Your task to perform on an android device: toggle show notifications on the lock screen Image 0: 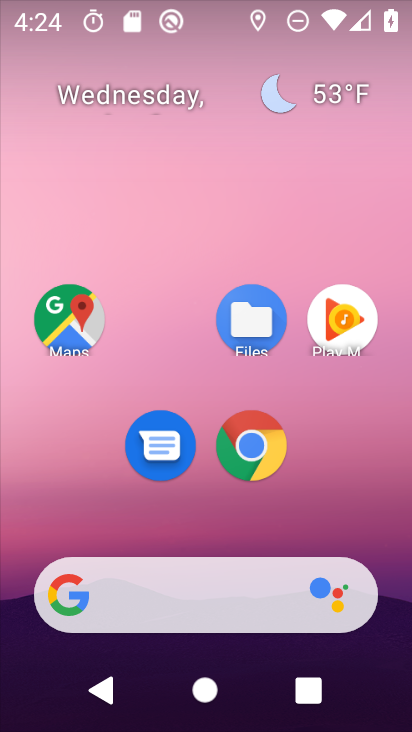
Step 0: click (252, 433)
Your task to perform on an android device: toggle show notifications on the lock screen Image 1: 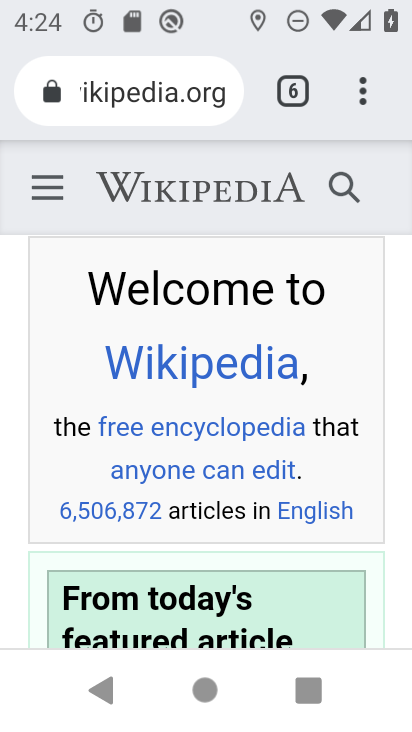
Step 1: press home button
Your task to perform on an android device: toggle show notifications on the lock screen Image 2: 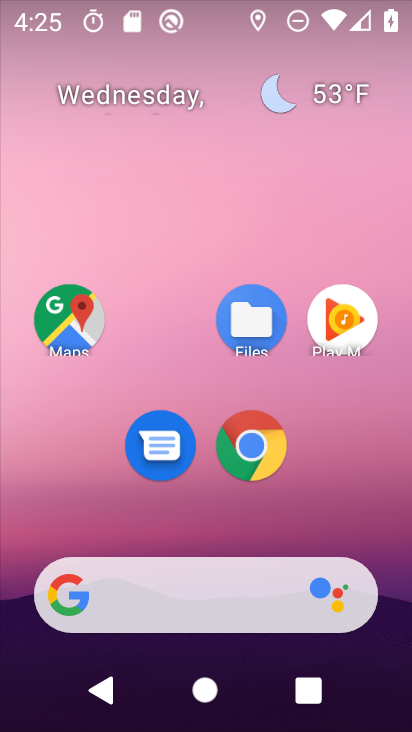
Step 2: drag from (315, 531) to (264, 150)
Your task to perform on an android device: toggle show notifications on the lock screen Image 3: 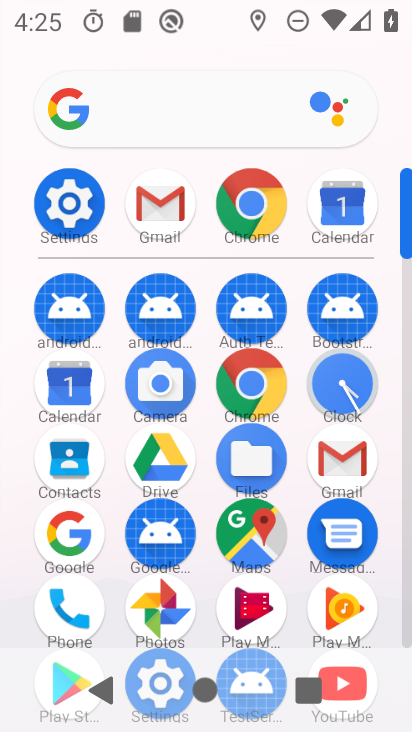
Step 3: click (66, 212)
Your task to perform on an android device: toggle show notifications on the lock screen Image 4: 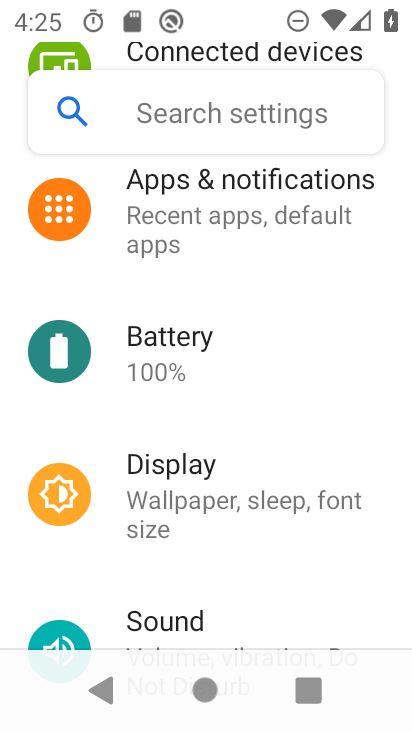
Step 4: click (128, 229)
Your task to perform on an android device: toggle show notifications on the lock screen Image 5: 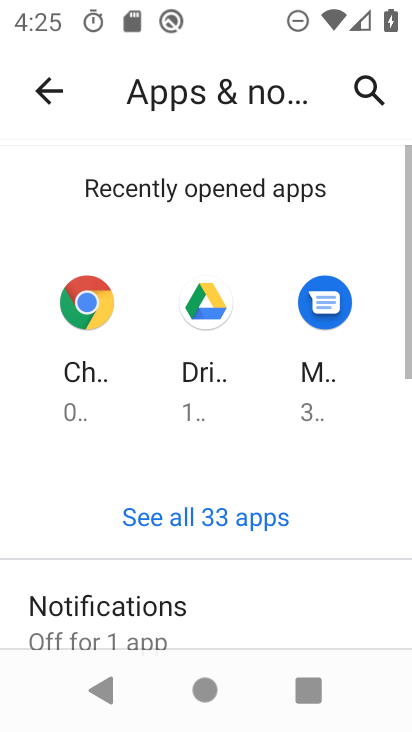
Step 5: drag from (198, 564) to (188, 165)
Your task to perform on an android device: toggle show notifications on the lock screen Image 6: 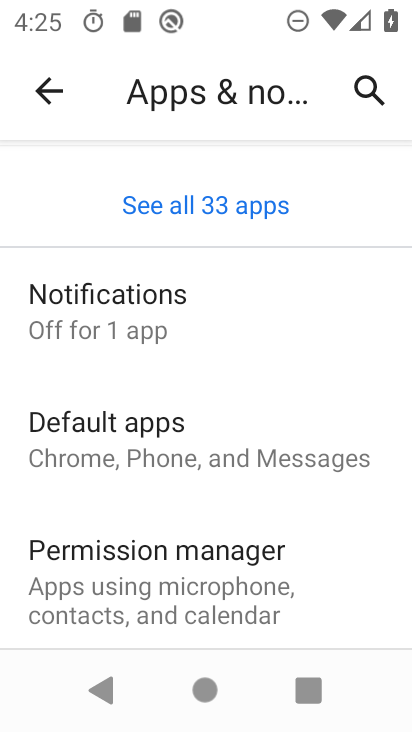
Step 6: click (195, 336)
Your task to perform on an android device: toggle show notifications on the lock screen Image 7: 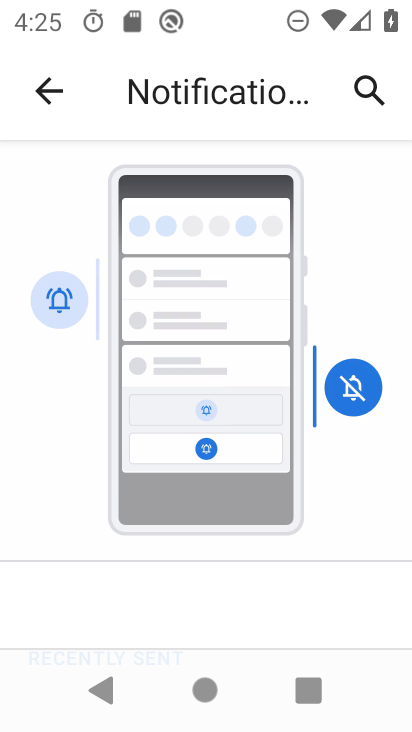
Step 7: drag from (321, 595) to (362, 246)
Your task to perform on an android device: toggle show notifications on the lock screen Image 8: 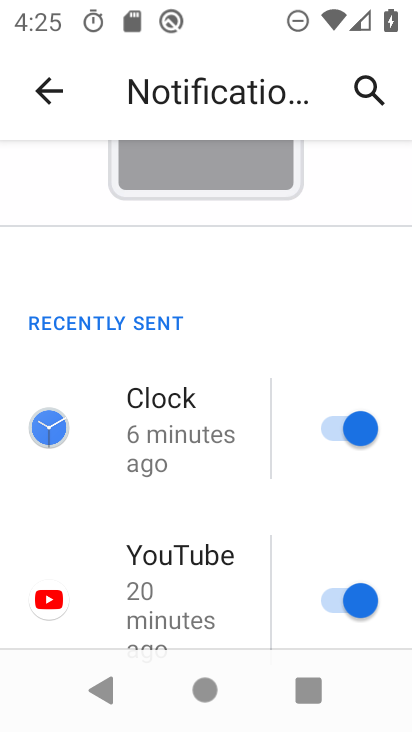
Step 8: drag from (247, 588) to (234, 215)
Your task to perform on an android device: toggle show notifications on the lock screen Image 9: 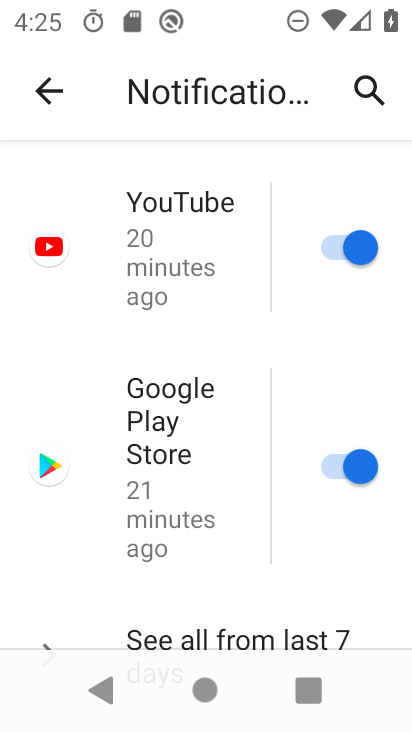
Step 9: drag from (219, 582) to (207, 203)
Your task to perform on an android device: toggle show notifications on the lock screen Image 10: 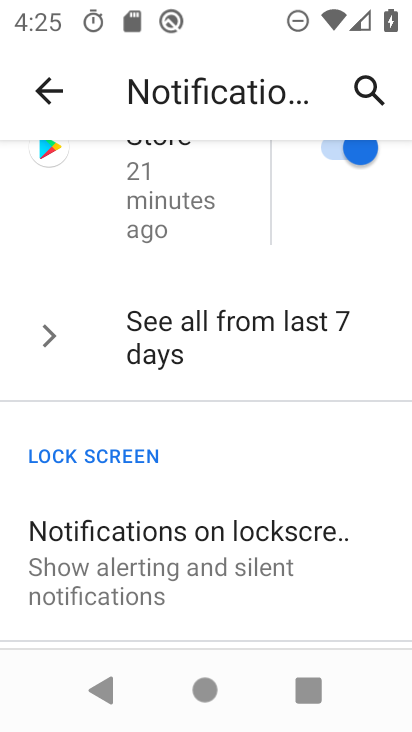
Step 10: click (249, 554)
Your task to perform on an android device: toggle show notifications on the lock screen Image 11: 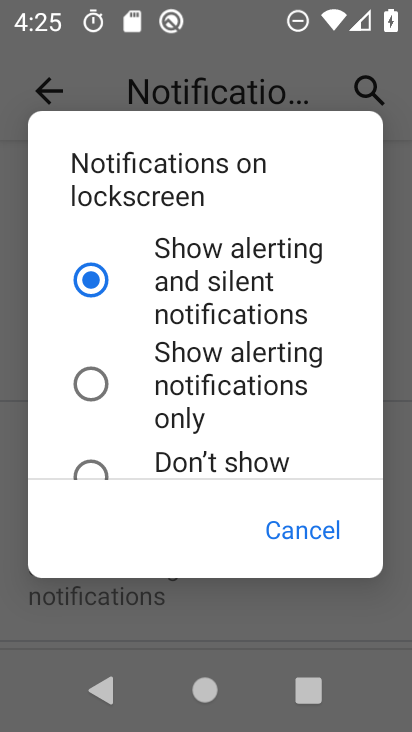
Step 11: click (221, 387)
Your task to perform on an android device: toggle show notifications on the lock screen Image 12: 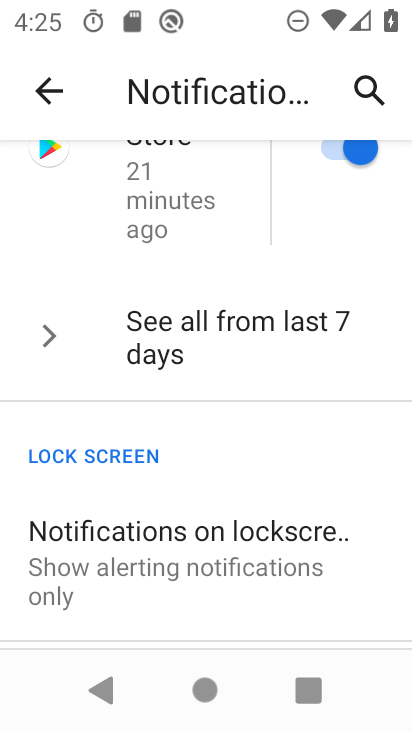
Step 12: task complete